Your task to perform on an android device: Open privacy settings Image 0: 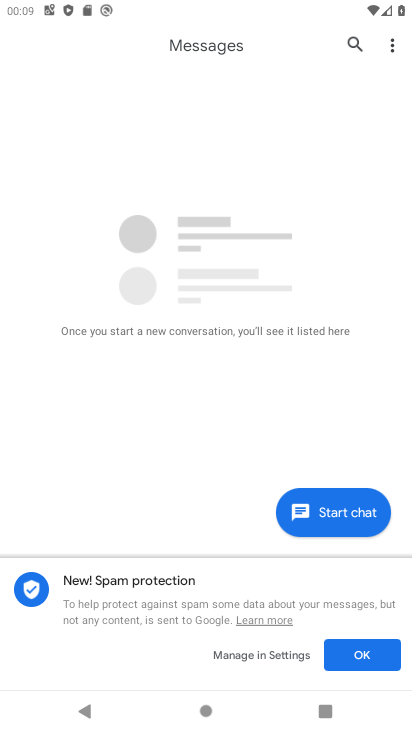
Step 0: press home button
Your task to perform on an android device: Open privacy settings Image 1: 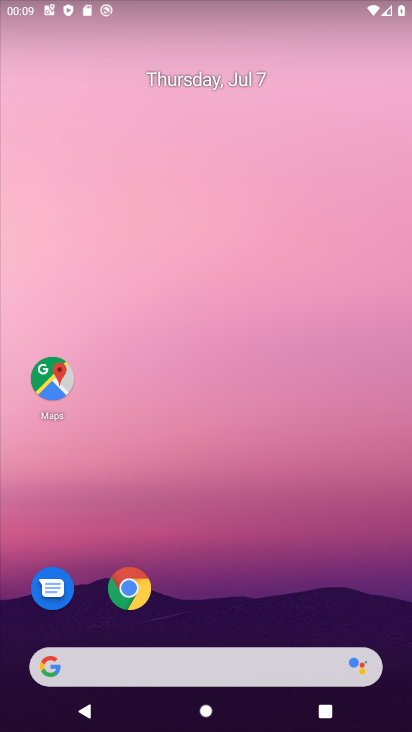
Step 1: drag from (257, 647) to (257, 73)
Your task to perform on an android device: Open privacy settings Image 2: 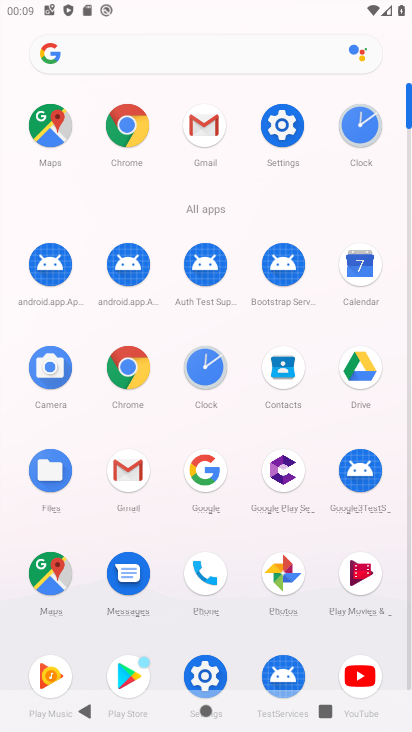
Step 2: click (280, 134)
Your task to perform on an android device: Open privacy settings Image 3: 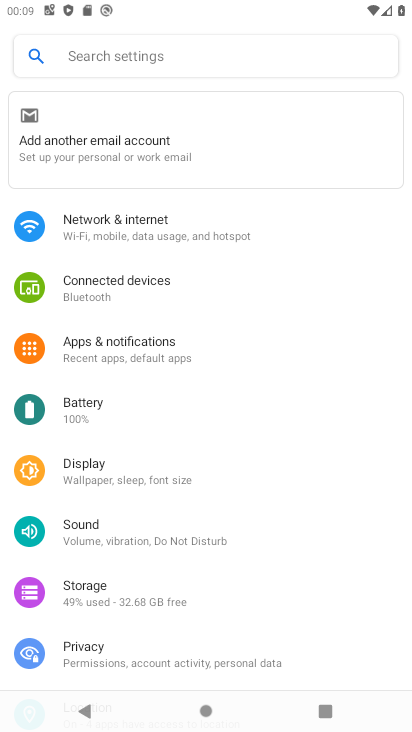
Step 3: click (80, 648)
Your task to perform on an android device: Open privacy settings Image 4: 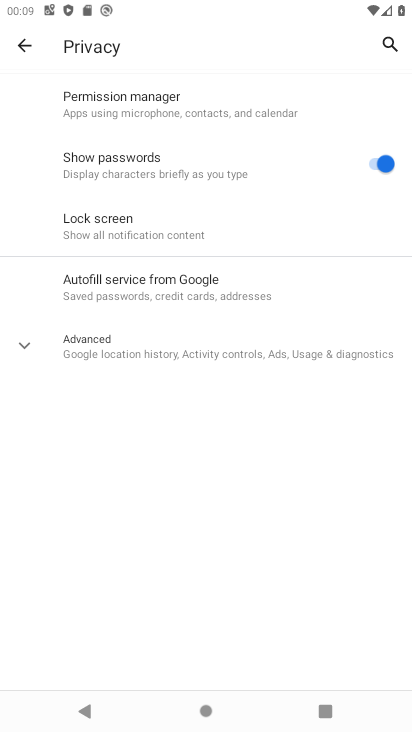
Step 4: task complete